Your task to perform on an android device: Show me productivity apps on the Play Store Image 0: 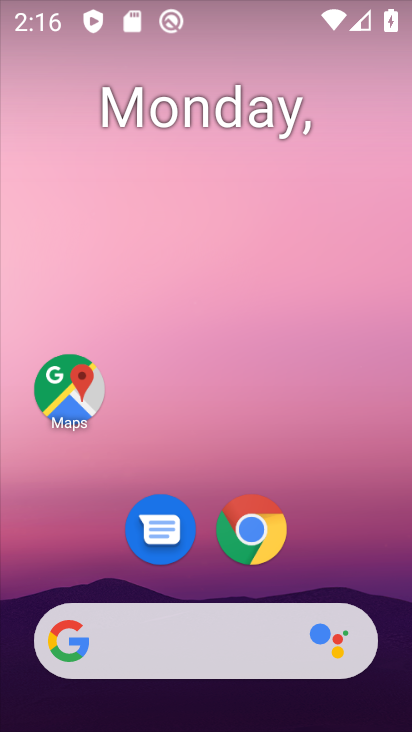
Step 0: drag from (411, 579) to (360, 203)
Your task to perform on an android device: Show me productivity apps on the Play Store Image 1: 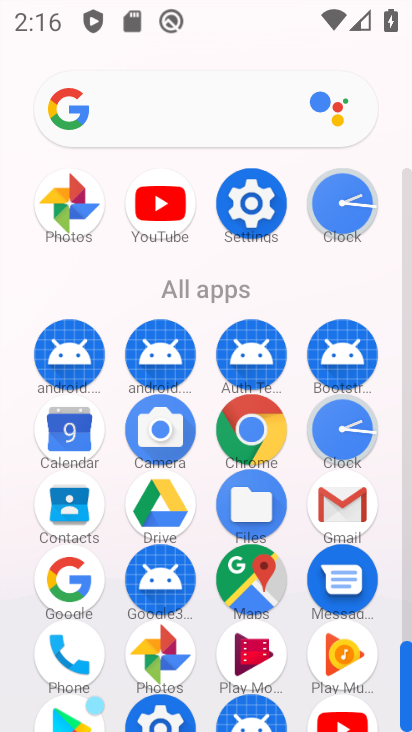
Step 1: drag from (196, 643) to (207, 252)
Your task to perform on an android device: Show me productivity apps on the Play Store Image 2: 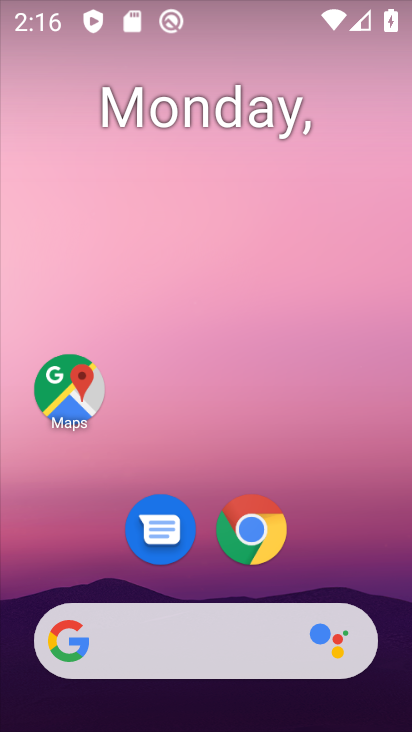
Step 2: drag from (399, 552) to (345, 132)
Your task to perform on an android device: Show me productivity apps on the Play Store Image 3: 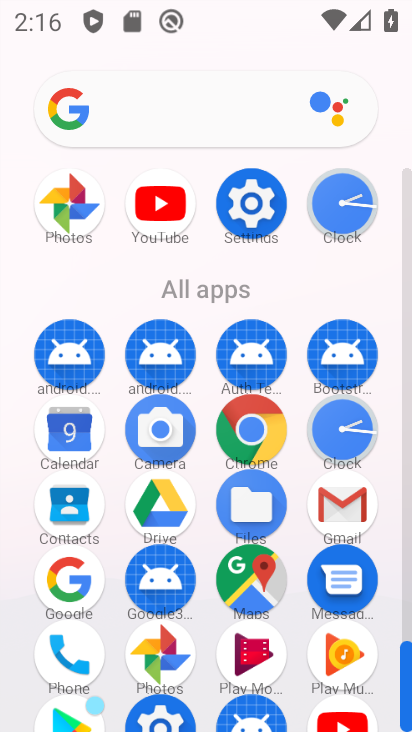
Step 3: drag from (300, 687) to (300, 343)
Your task to perform on an android device: Show me productivity apps on the Play Store Image 4: 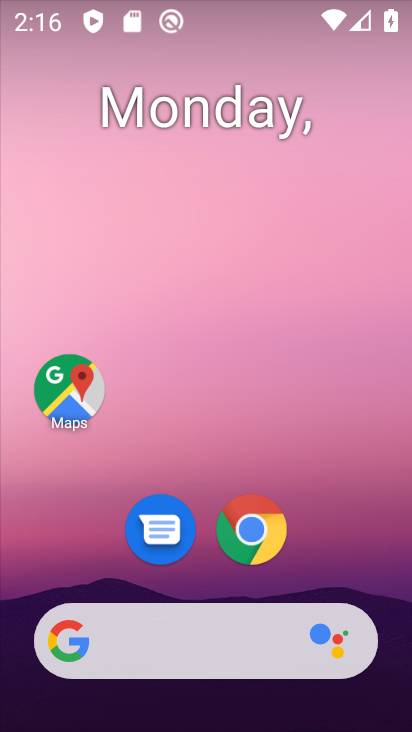
Step 4: drag from (352, 521) to (371, 202)
Your task to perform on an android device: Show me productivity apps on the Play Store Image 5: 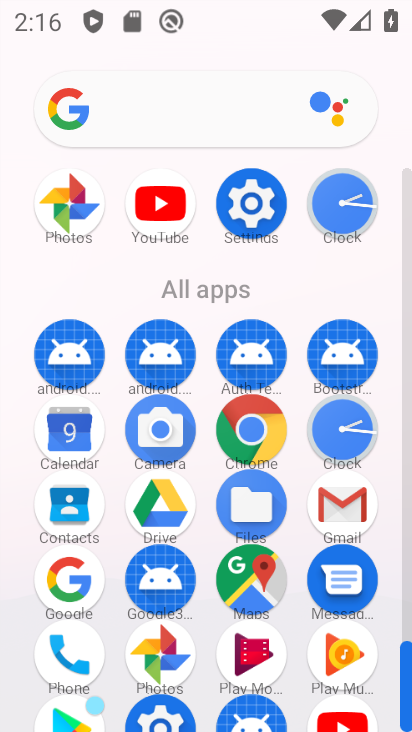
Step 5: drag from (125, 642) to (163, 274)
Your task to perform on an android device: Show me productivity apps on the Play Store Image 6: 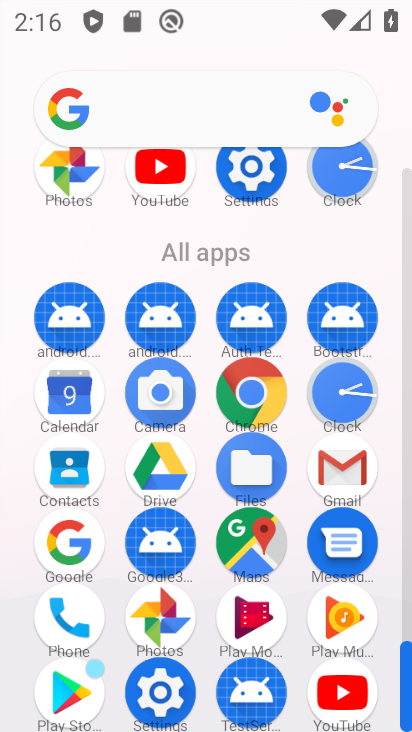
Step 6: click (77, 678)
Your task to perform on an android device: Show me productivity apps on the Play Store Image 7: 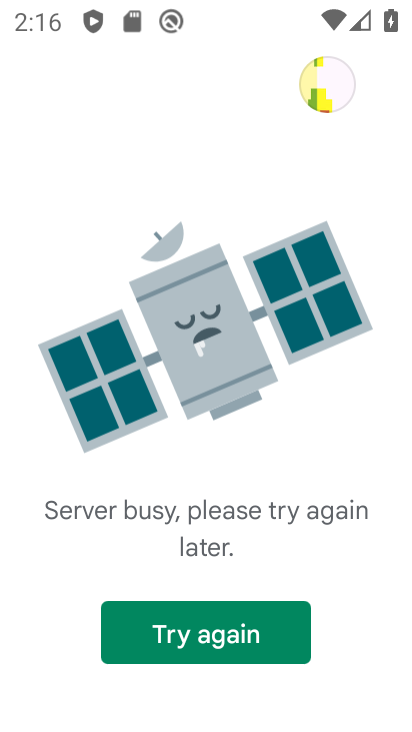
Step 7: task complete